Your task to perform on an android device: Open calendar and show me the third week of next month Image 0: 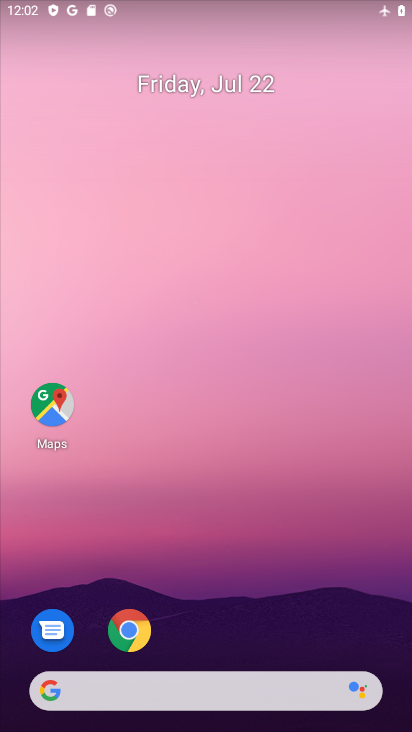
Step 0: drag from (178, 665) to (154, 180)
Your task to perform on an android device: Open calendar and show me the third week of next month Image 1: 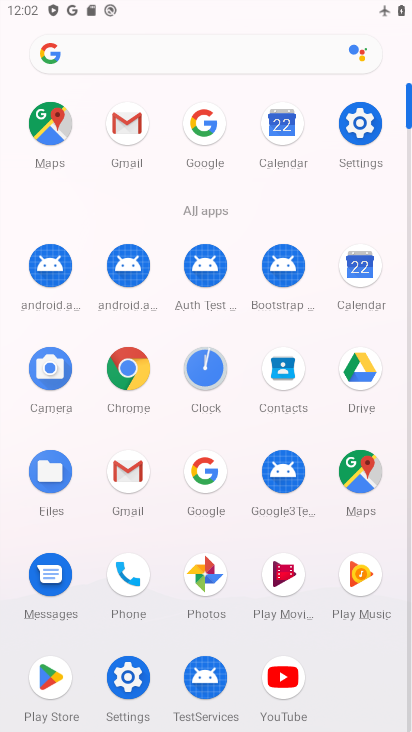
Step 1: click (350, 282)
Your task to perform on an android device: Open calendar and show me the third week of next month Image 2: 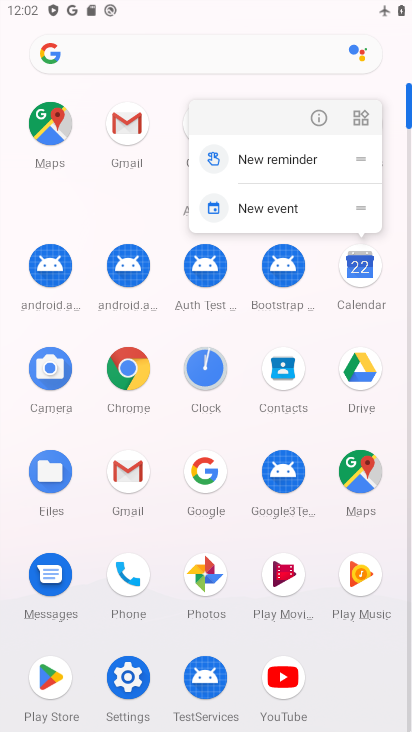
Step 2: click (353, 278)
Your task to perform on an android device: Open calendar and show me the third week of next month Image 3: 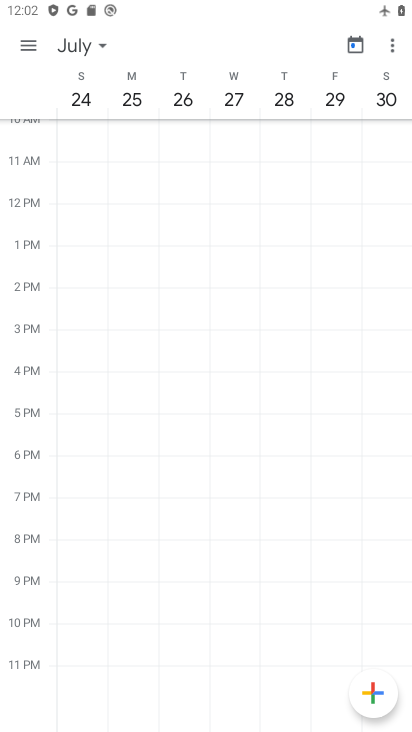
Step 3: click (356, 38)
Your task to perform on an android device: Open calendar and show me the third week of next month Image 4: 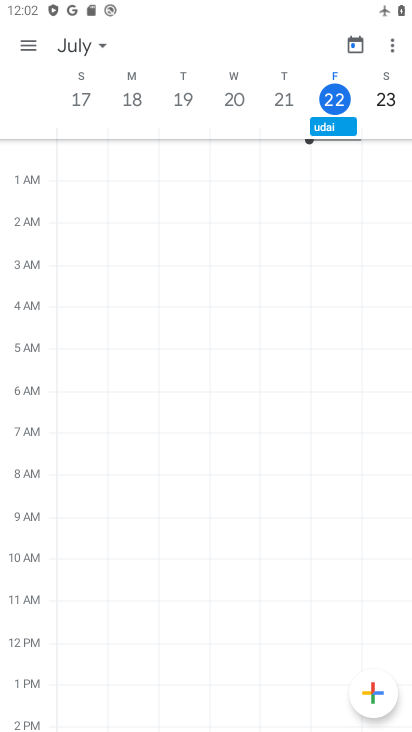
Step 4: task complete